Your task to perform on an android device: Open Maps and search for coffee Image 0: 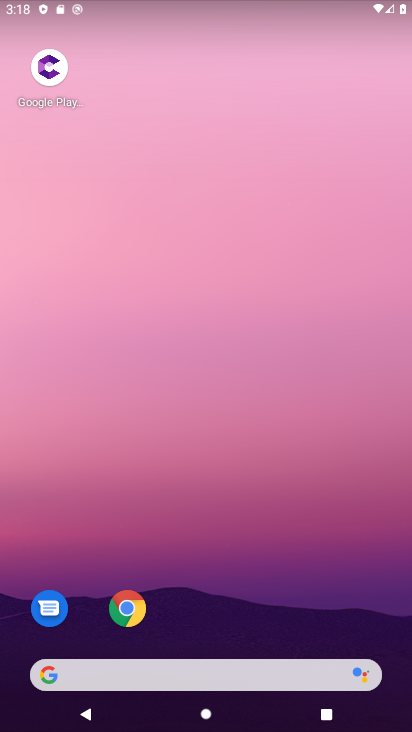
Step 0: drag from (204, 650) to (287, 166)
Your task to perform on an android device: Open Maps and search for coffee Image 1: 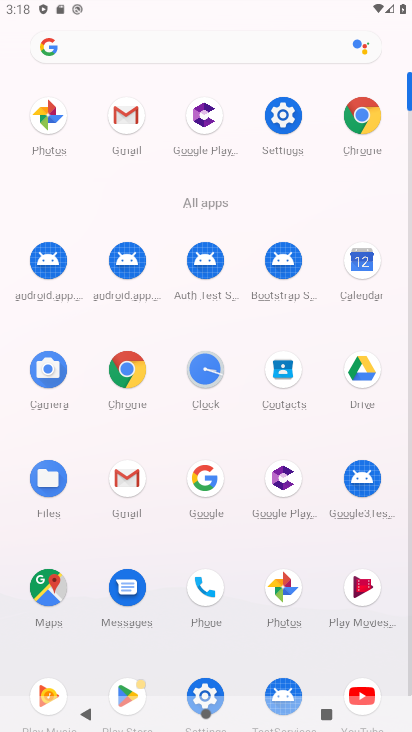
Step 1: click (51, 590)
Your task to perform on an android device: Open Maps and search for coffee Image 2: 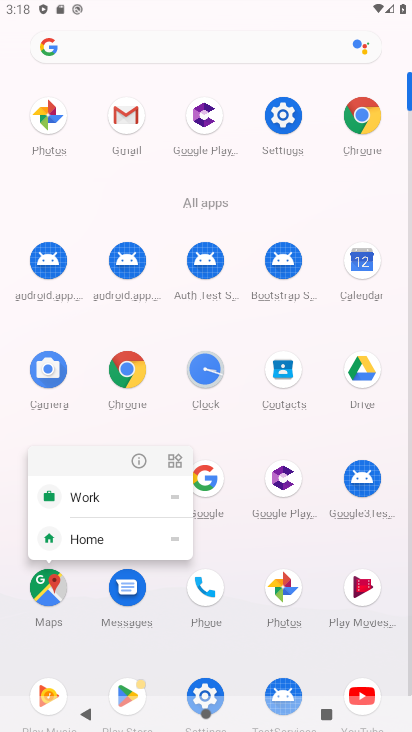
Step 2: click (45, 592)
Your task to perform on an android device: Open Maps and search for coffee Image 3: 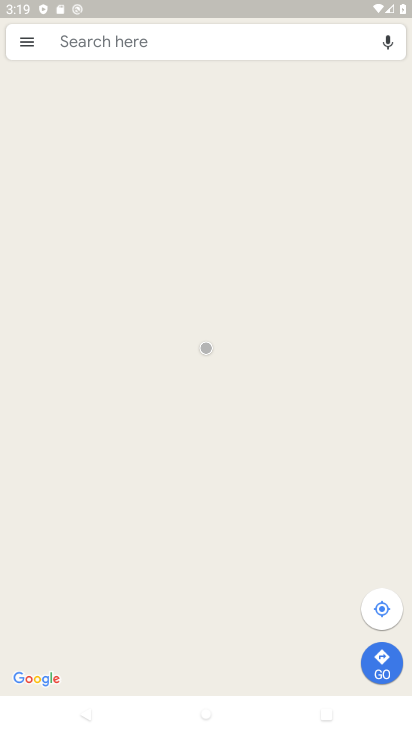
Step 3: click (171, 49)
Your task to perform on an android device: Open Maps and search for coffee Image 4: 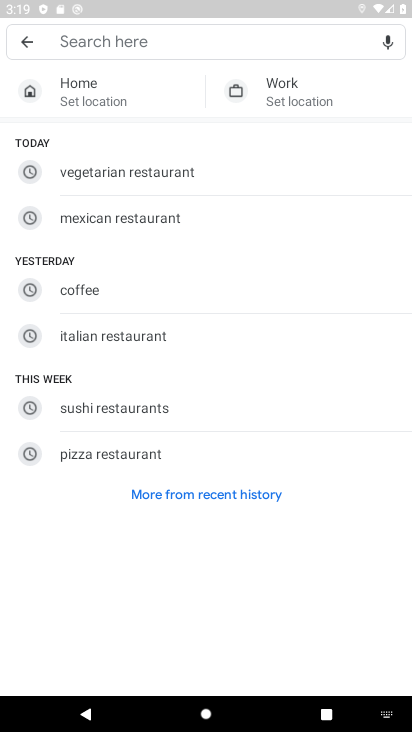
Step 4: type "coffee"
Your task to perform on an android device: Open Maps and search for coffee Image 5: 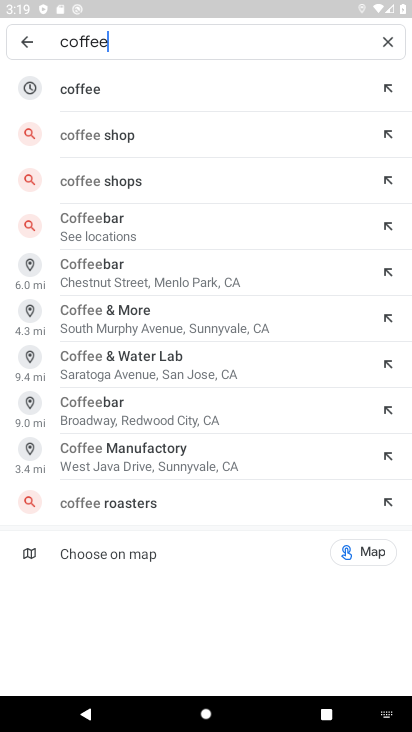
Step 5: click (175, 87)
Your task to perform on an android device: Open Maps and search for coffee Image 6: 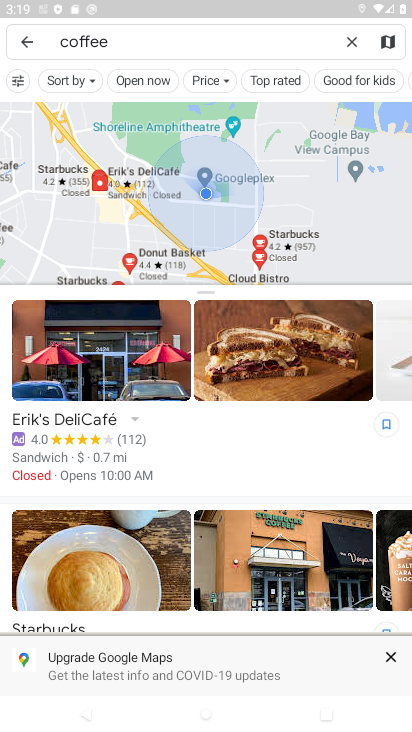
Step 6: click (388, 649)
Your task to perform on an android device: Open Maps and search for coffee Image 7: 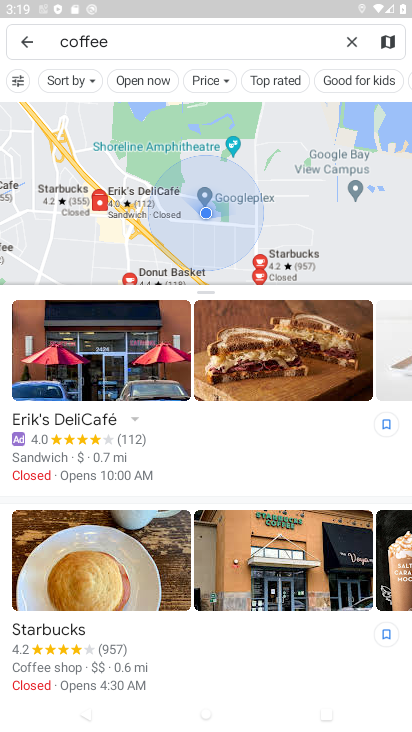
Step 7: task complete